Your task to perform on an android device: Turn off the flashlight Image 0: 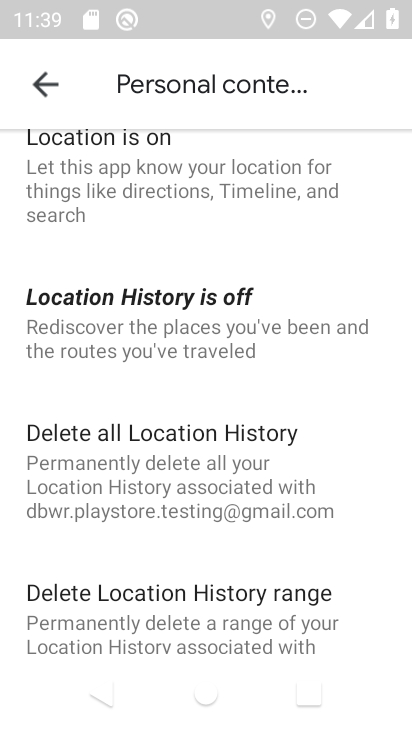
Step 0: press home button
Your task to perform on an android device: Turn off the flashlight Image 1: 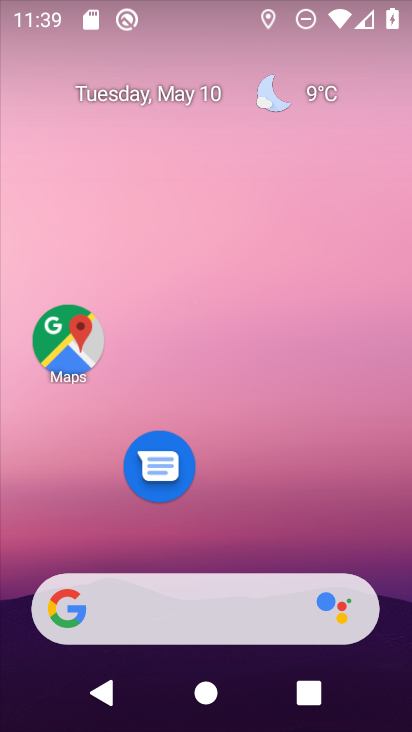
Step 1: drag from (286, 520) to (268, 46)
Your task to perform on an android device: Turn off the flashlight Image 2: 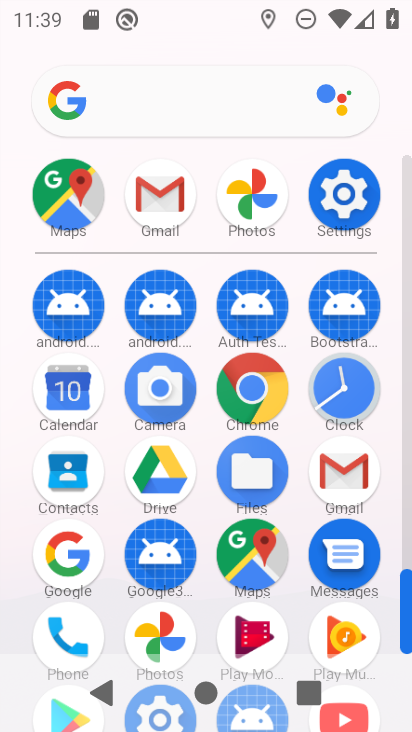
Step 2: click (337, 184)
Your task to perform on an android device: Turn off the flashlight Image 3: 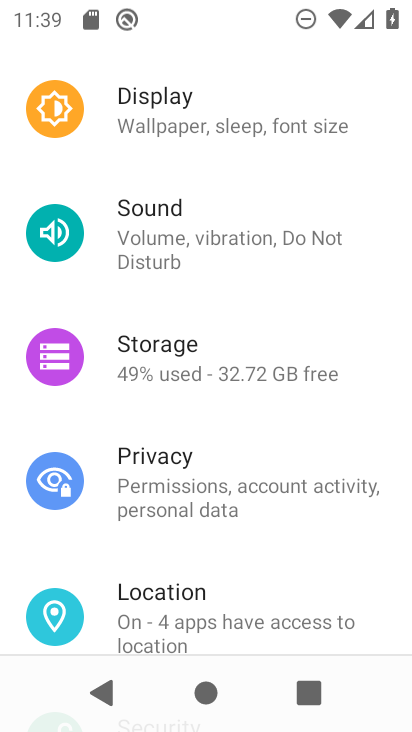
Step 3: task complete